Your task to perform on an android device: Clear all items from cart on walmart. Search for "apple airpods" on walmart, select the first entry, and add it to the cart. Image 0: 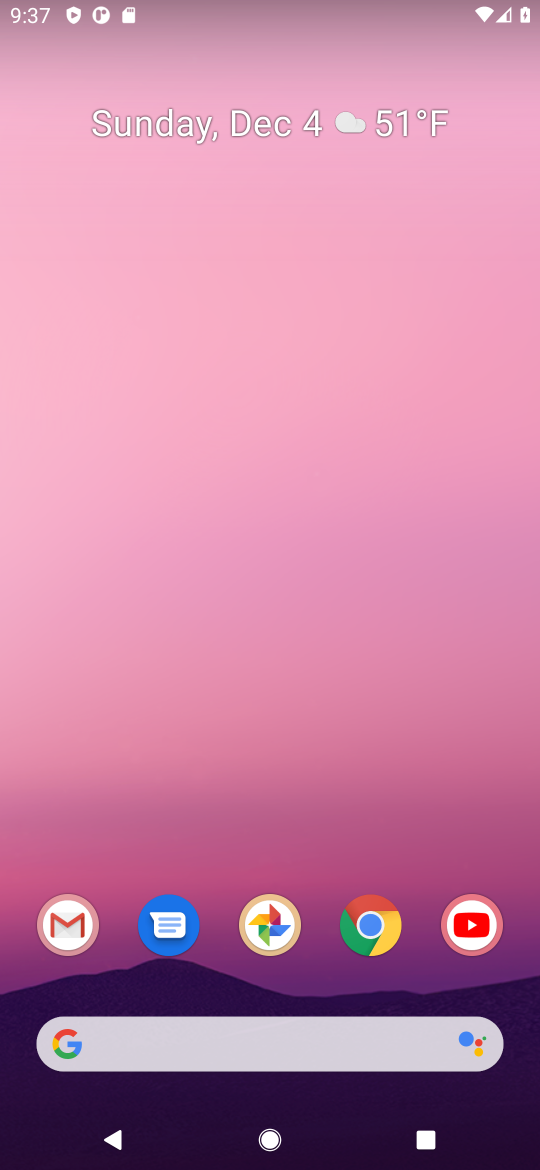
Step 0: drag from (163, 1001) to (250, 394)
Your task to perform on an android device: Clear all items from cart on walmart. Search for "apple airpods" on walmart, select the first entry, and add it to the cart. Image 1: 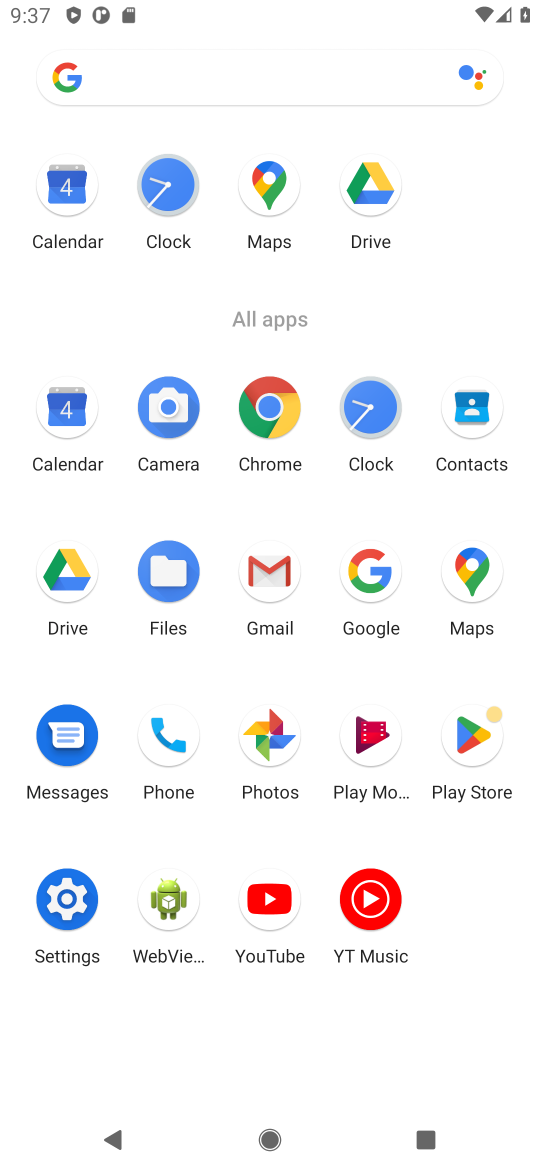
Step 1: click (369, 583)
Your task to perform on an android device: Clear all items from cart on walmart. Search for "apple airpods" on walmart, select the first entry, and add it to the cart. Image 2: 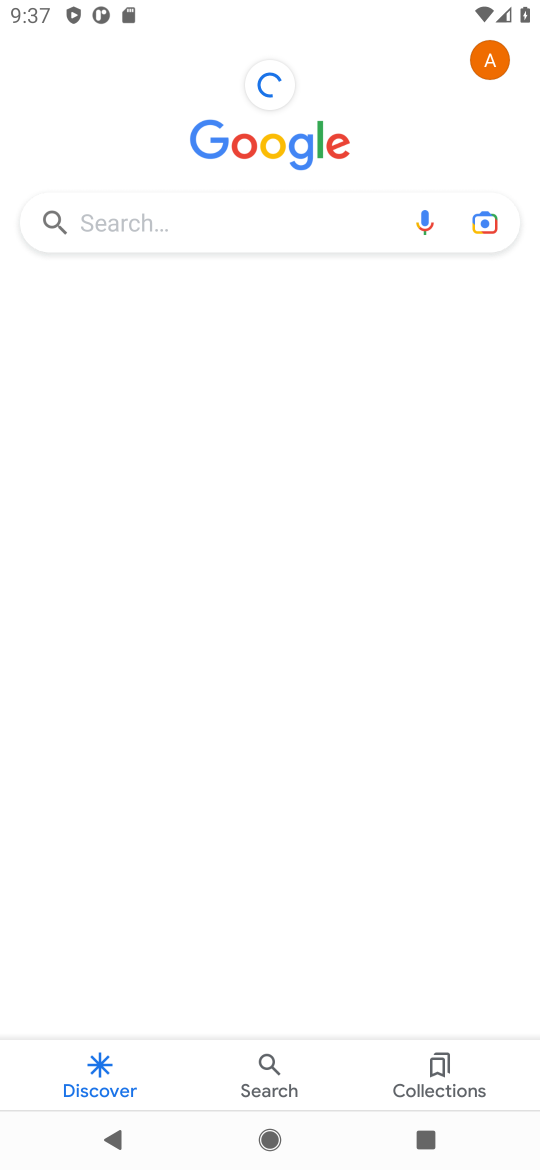
Step 2: click (137, 225)
Your task to perform on an android device: Clear all items from cart on walmart. Search for "apple airpods" on walmart, select the first entry, and add it to the cart. Image 3: 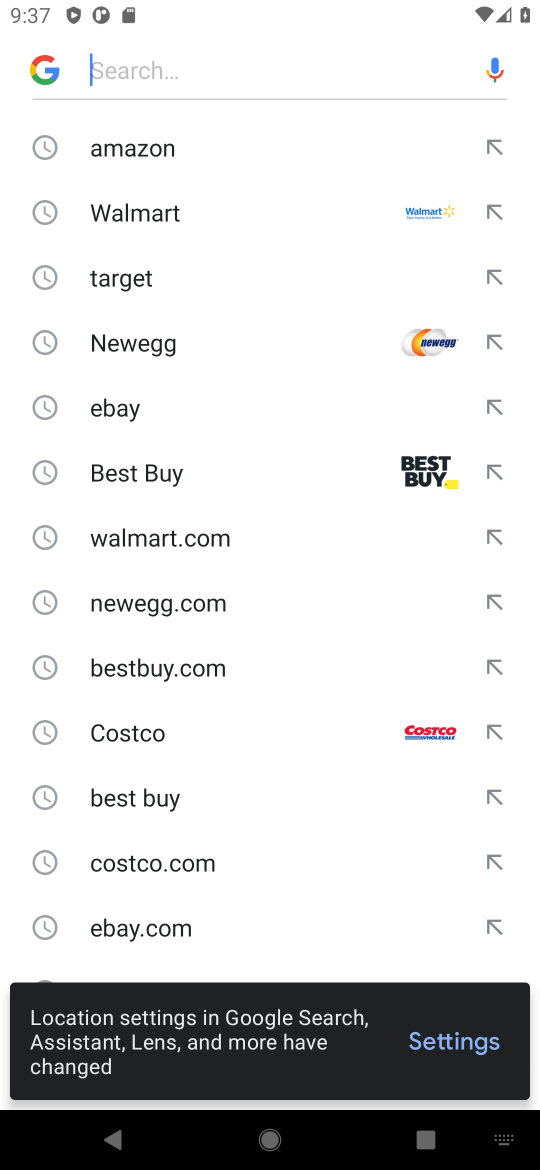
Step 3: click (127, 205)
Your task to perform on an android device: Clear all items from cart on walmart. Search for "apple airpods" on walmart, select the first entry, and add it to the cart. Image 4: 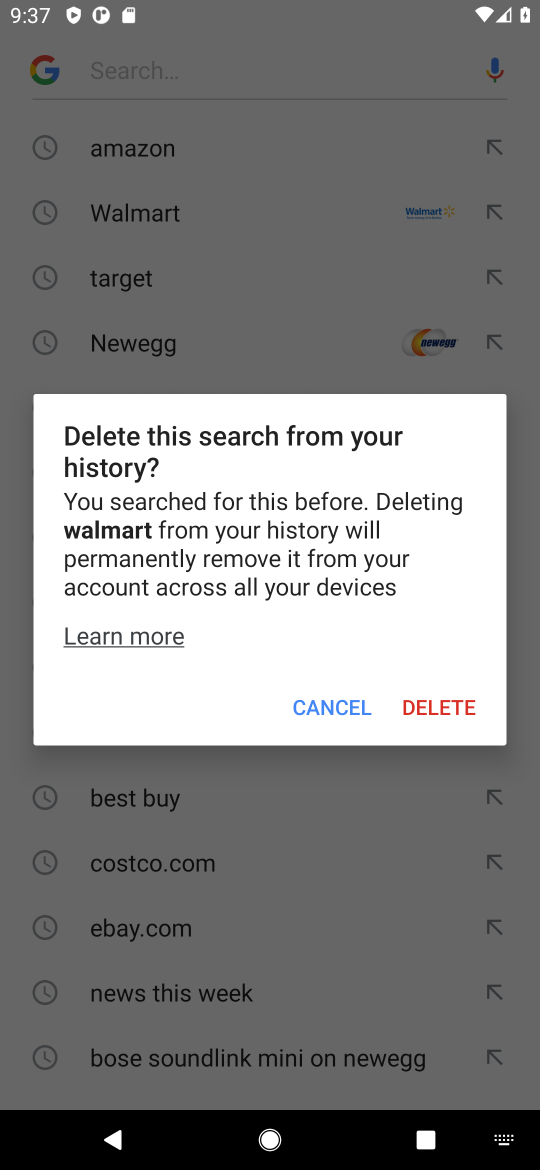
Step 4: click (309, 699)
Your task to perform on an android device: Clear all items from cart on walmart. Search for "apple airpods" on walmart, select the first entry, and add it to the cart. Image 5: 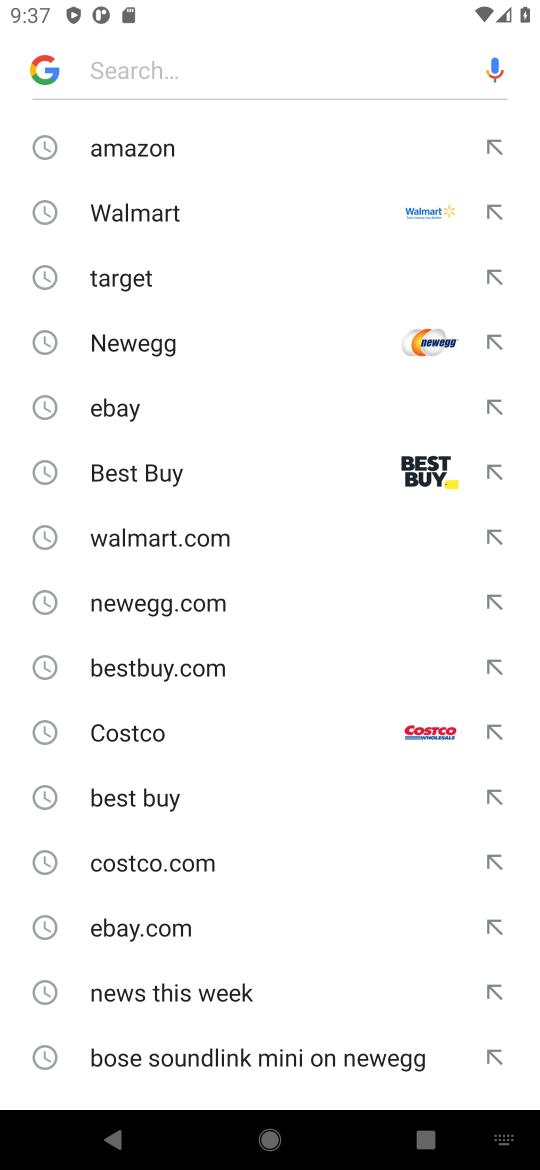
Step 5: click (486, 218)
Your task to perform on an android device: Clear all items from cart on walmart. Search for "apple airpods" on walmart, select the first entry, and add it to the cart. Image 6: 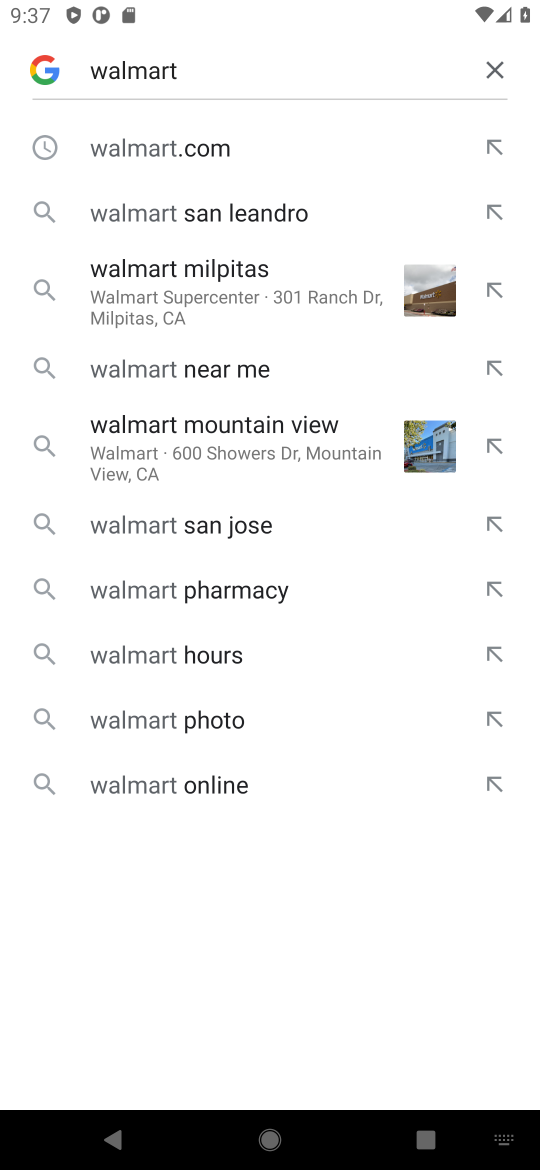
Step 6: click (149, 156)
Your task to perform on an android device: Clear all items from cart on walmart. Search for "apple airpods" on walmart, select the first entry, and add it to the cart. Image 7: 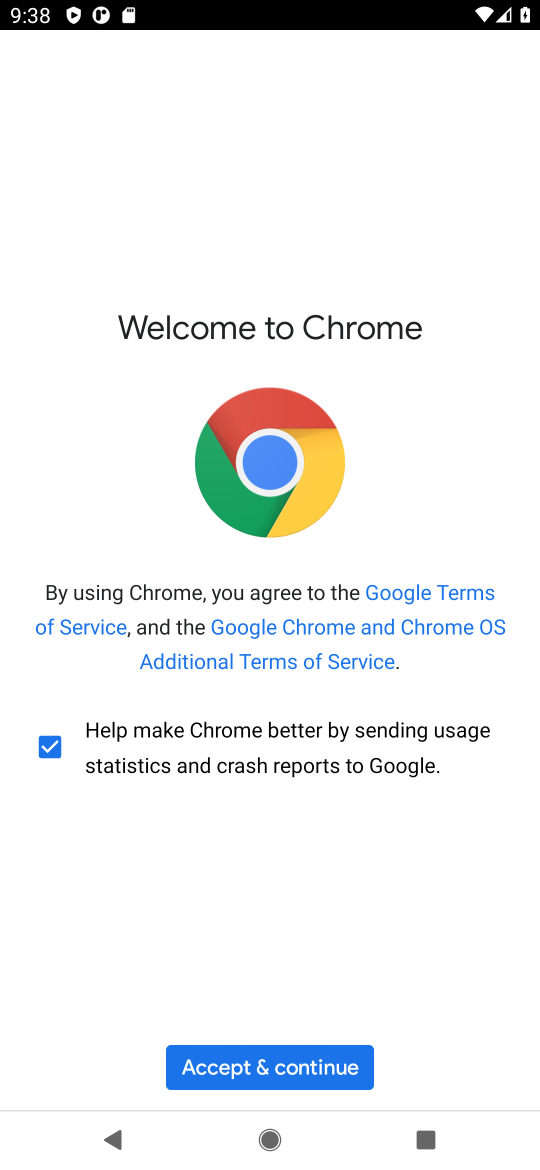
Step 7: click (223, 1060)
Your task to perform on an android device: Clear all items from cart on walmart. Search for "apple airpods" on walmart, select the first entry, and add it to the cart. Image 8: 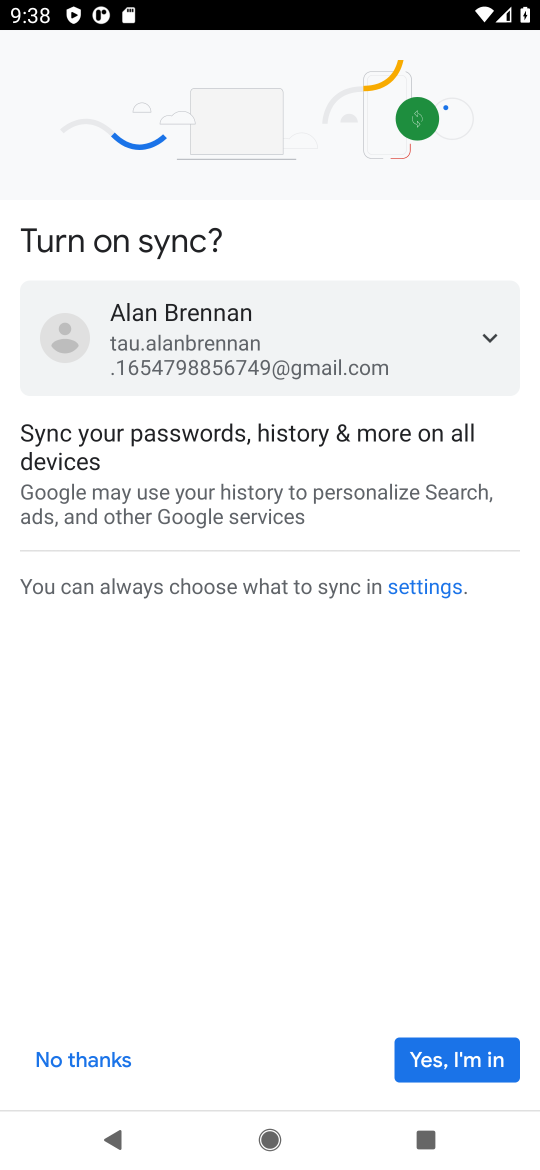
Step 8: click (463, 1069)
Your task to perform on an android device: Clear all items from cart on walmart. Search for "apple airpods" on walmart, select the first entry, and add it to the cart. Image 9: 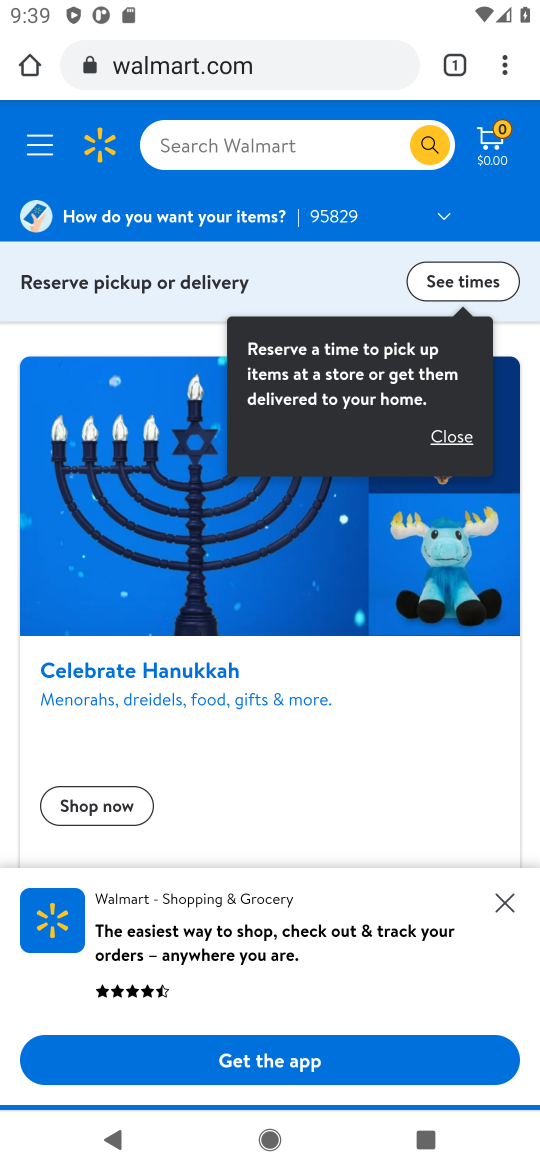
Step 9: click (245, 125)
Your task to perform on an android device: Clear all items from cart on walmart. Search for "apple airpods" on walmart, select the first entry, and add it to the cart. Image 10: 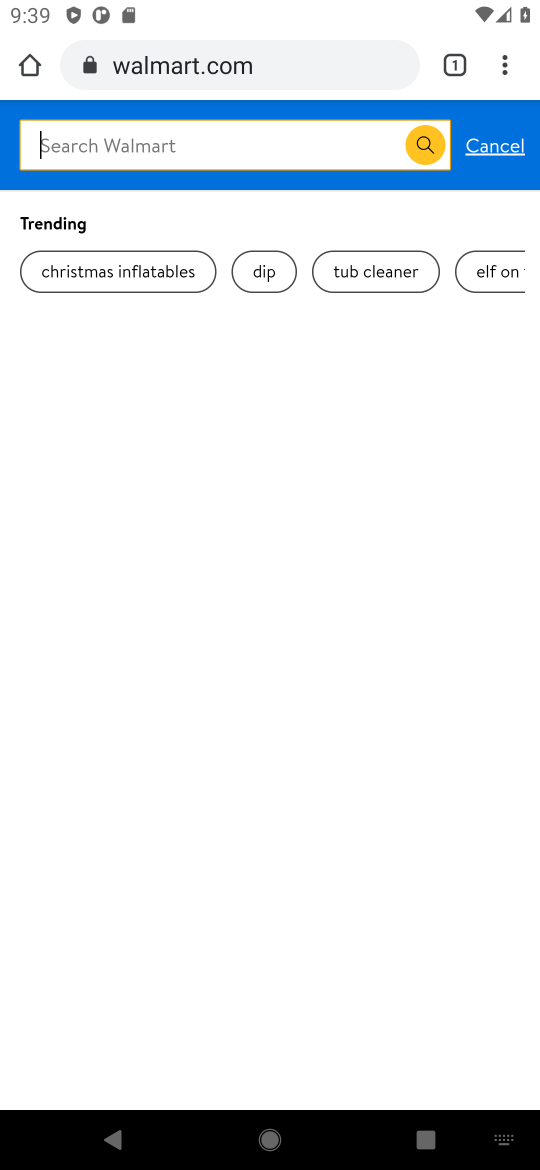
Step 10: type "apple airpods"
Your task to perform on an android device: Clear all items from cart on walmart. Search for "apple airpods" on walmart, select the first entry, and add it to the cart. Image 11: 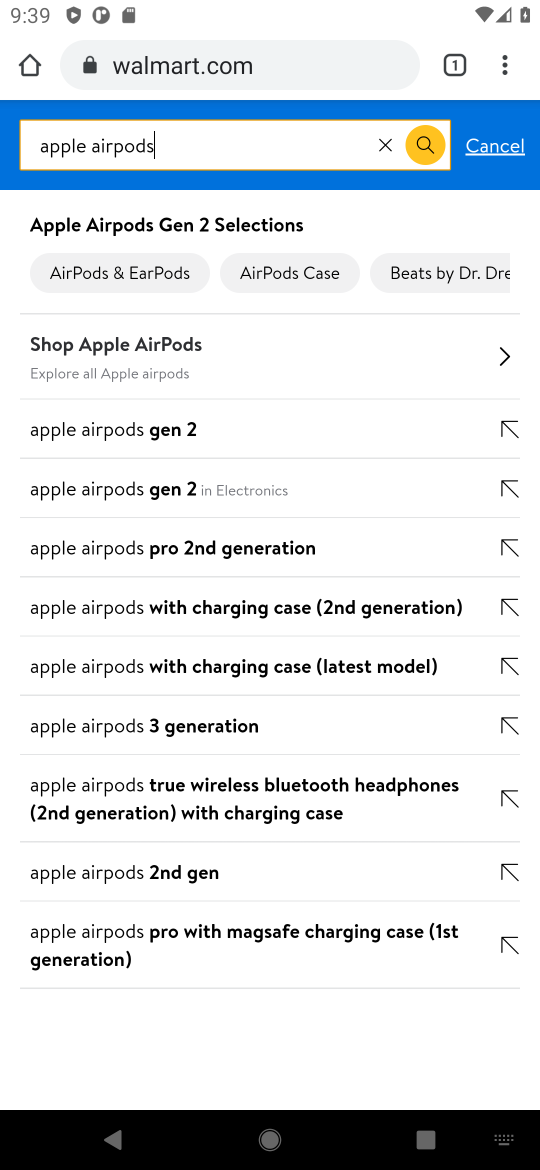
Step 11: click (114, 429)
Your task to perform on an android device: Clear all items from cart on walmart. Search for "apple airpods" on walmart, select the first entry, and add it to the cart. Image 12: 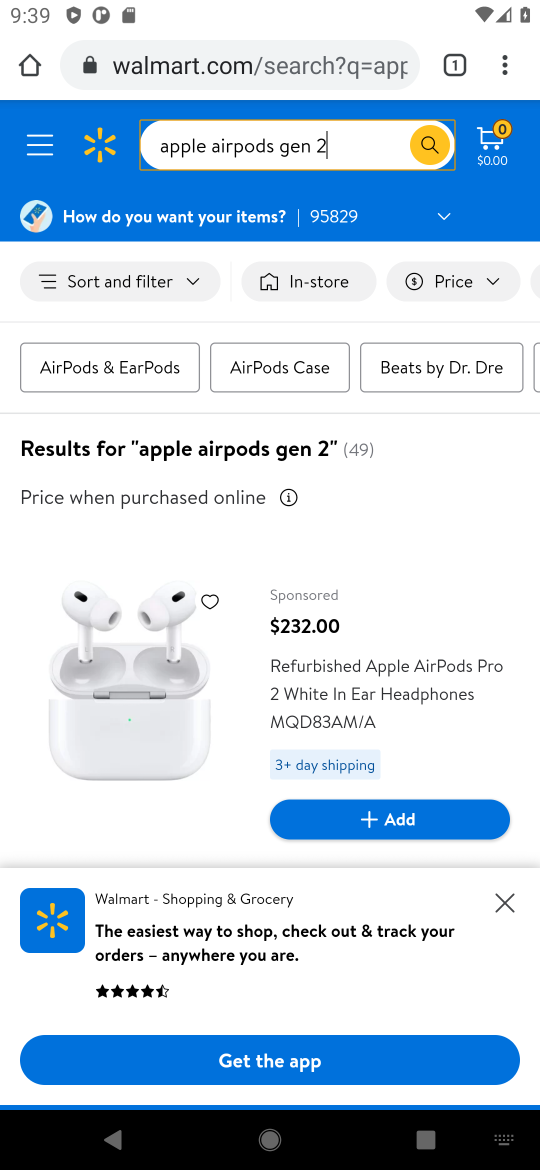
Step 12: click (506, 911)
Your task to perform on an android device: Clear all items from cart on walmart. Search for "apple airpods" on walmart, select the first entry, and add it to the cart. Image 13: 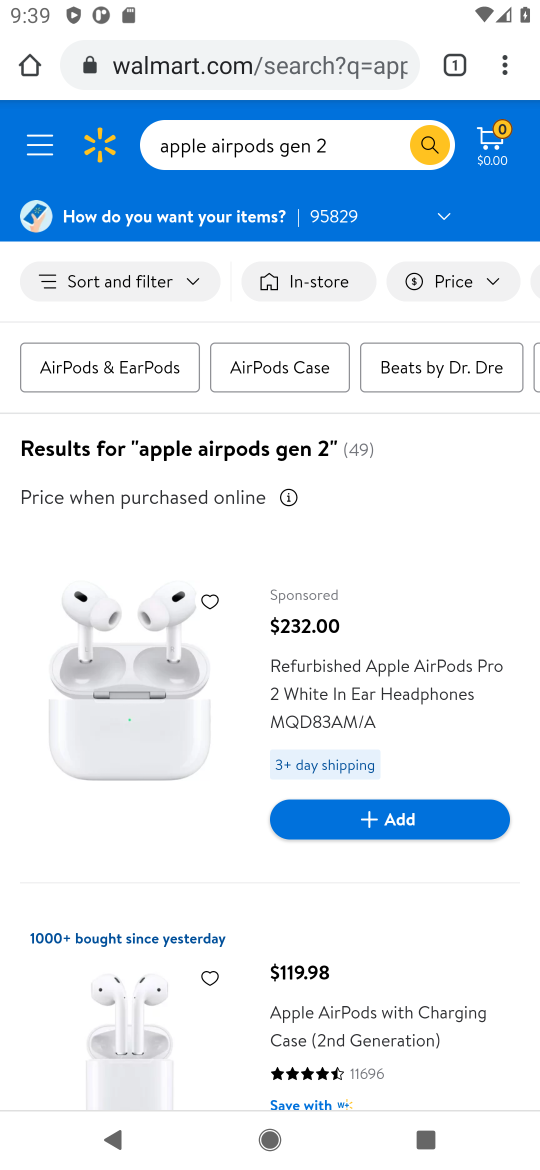
Step 13: click (395, 825)
Your task to perform on an android device: Clear all items from cart on walmart. Search for "apple airpods" on walmart, select the first entry, and add it to the cart. Image 14: 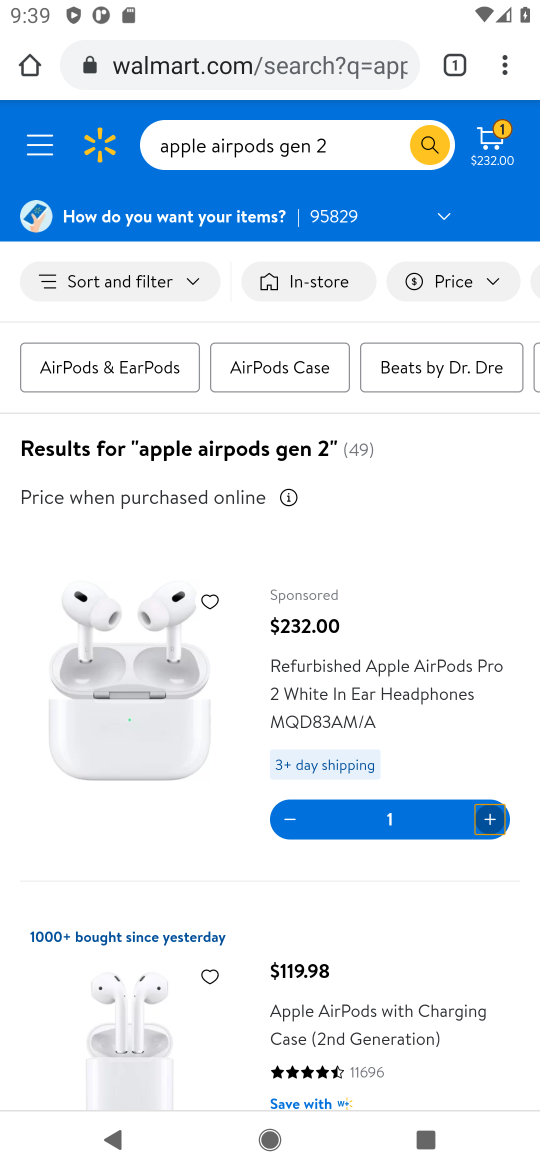
Step 14: click (493, 136)
Your task to perform on an android device: Clear all items from cart on walmart. Search for "apple airpods" on walmart, select the first entry, and add it to the cart. Image 15: 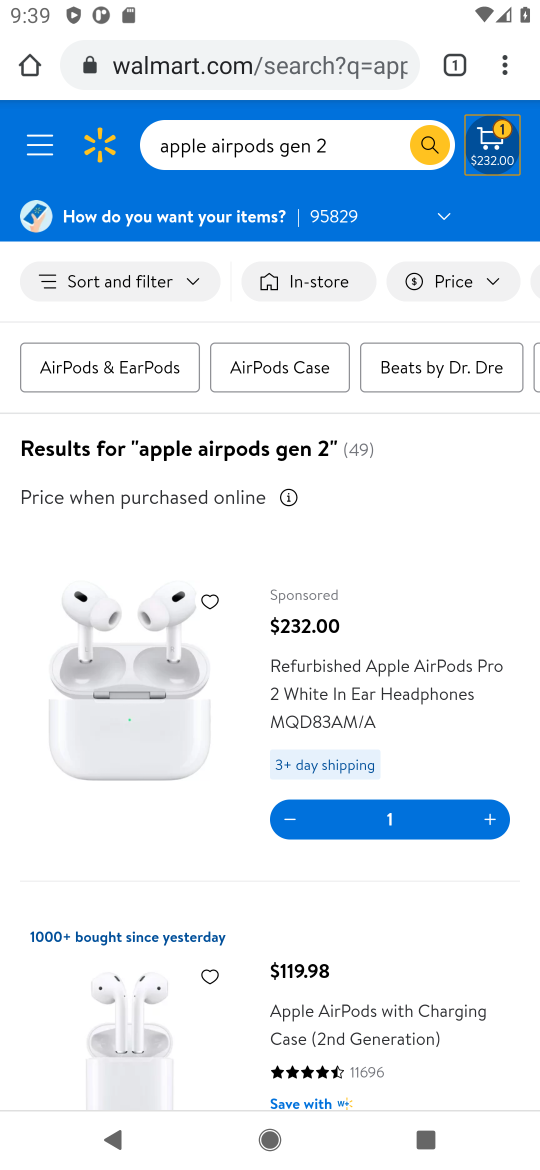
Step 15: click (487, 141)
Your task to perform on an android device: Clear all items from cart on walmart. Search for "apple airpods" on walmart, select the first entry, and add it to the cart. Image 16: 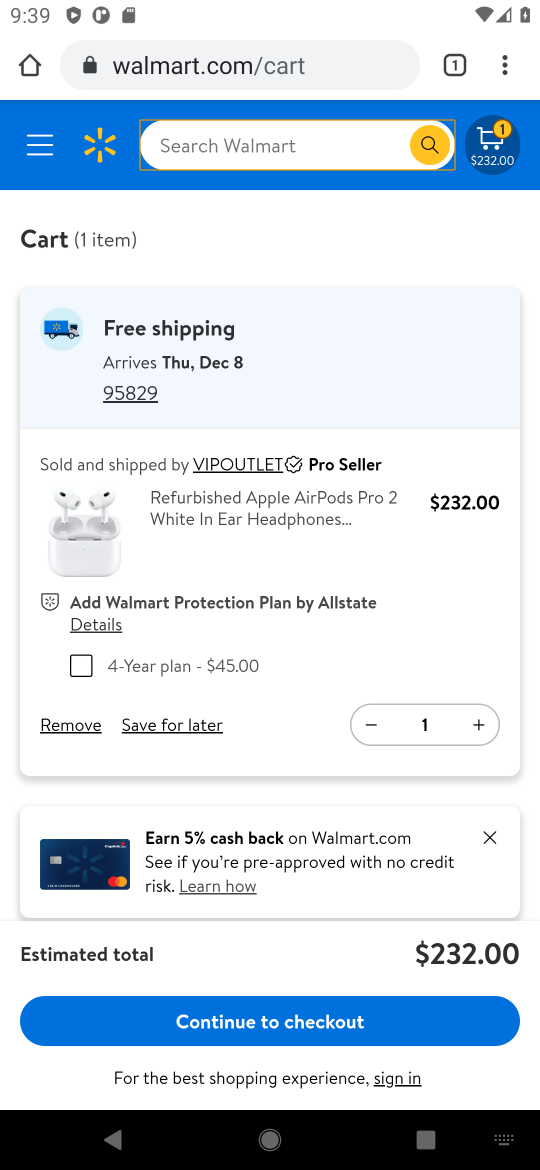
Step 16: drag from (268, 887) to (342, 425)
Your task to perform on an android device: Clear all items from cart on walmart. Search for "apple airpods" on walmart, select the first entry, and add it to the cart. Image 17: 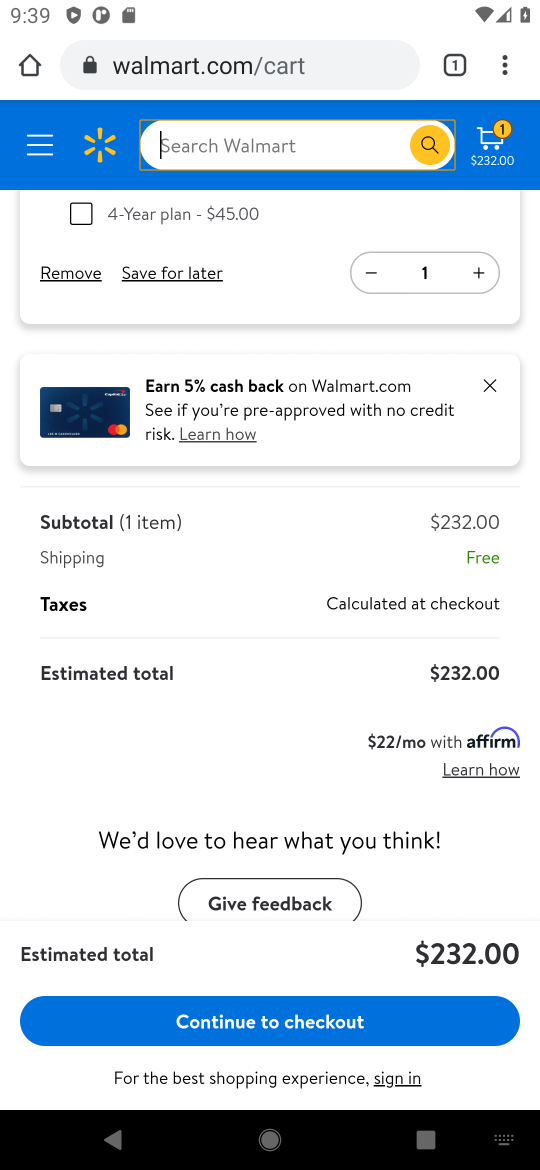
Step 17: click (358, 1024)
Your task to perform on an android device: Clear all items from cart on walmart. Search for "apple airpods" on walmart, select the first entry, and add it to the cart. Image 18: 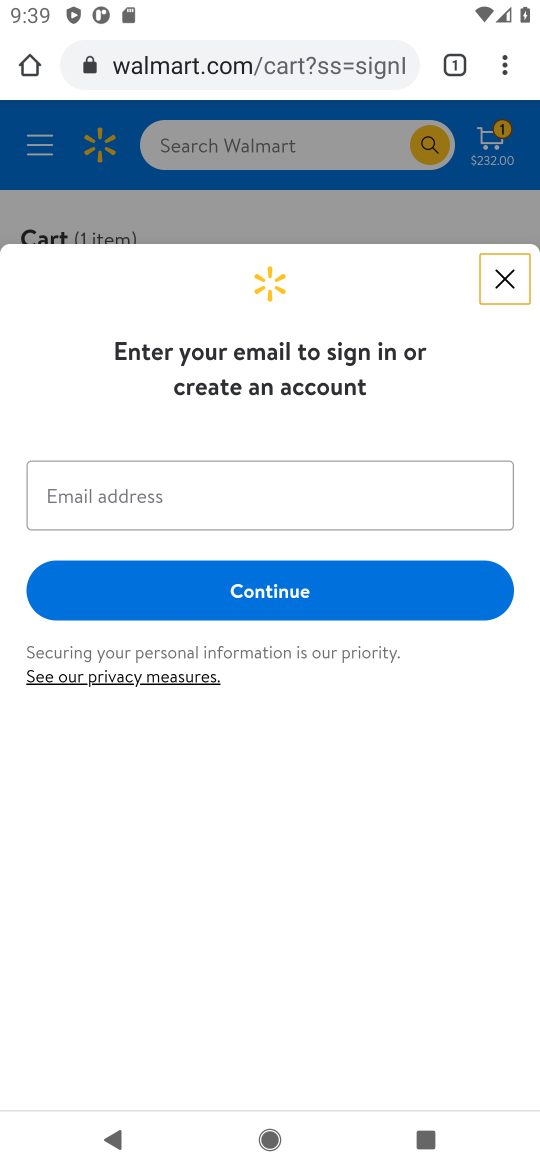
Step 18: task complete